Your task to perform on an android device: Open privacy settings Image 0: 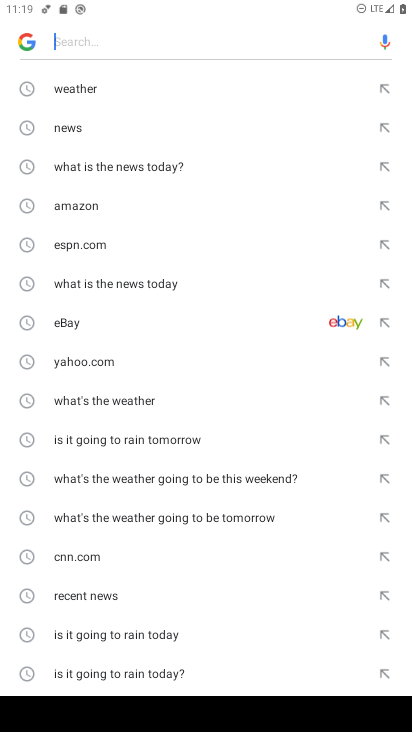
Step 0: press home button
Your task to perform on an android device: Open privacy settings Image 1: 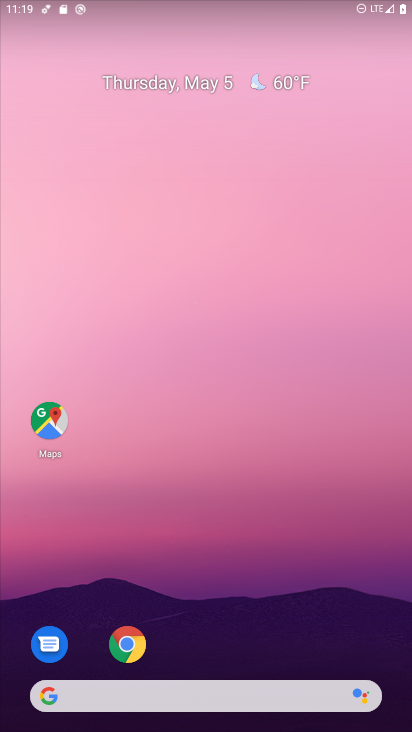
Step 1: drag from (303, 594) to (327, 121)
Your task to perform on an android device: Open privacy settings Image 2: 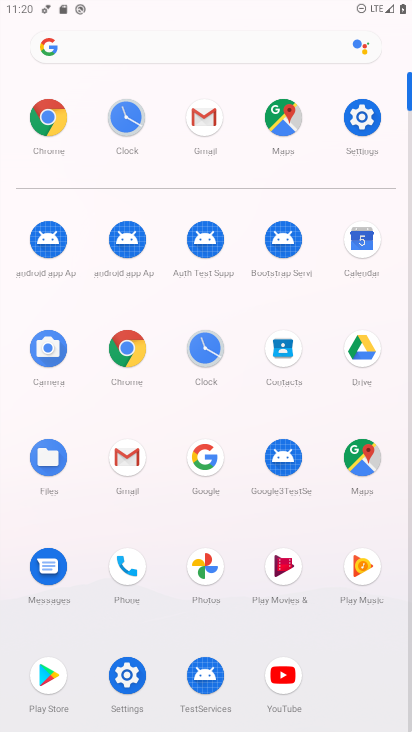
Step 2: click (130, 673)
Your task to perform on an android device: Open privacy settings Image 3: 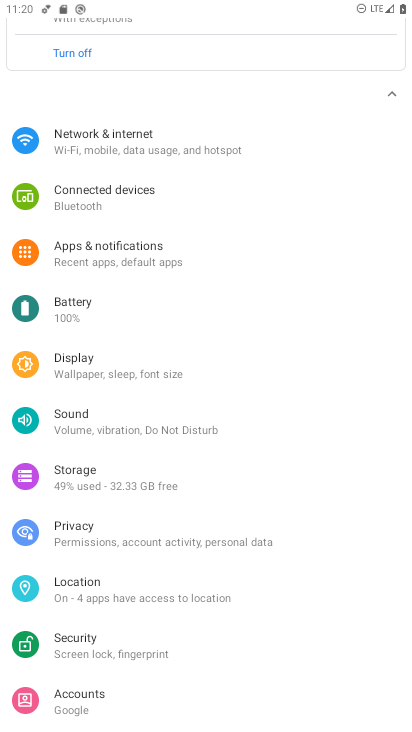
Step 3: click (123, 541)
Your task to perform on an android device: Open privacy settings Image 4: 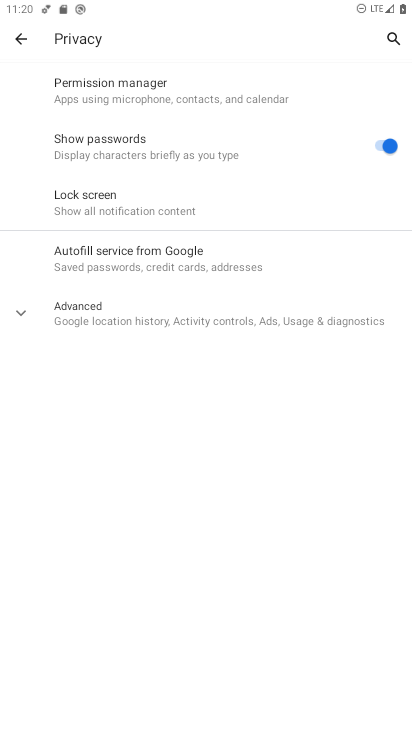
Step 4: task complete